Your task to perform on an android device: create a new album in the google photos Image 0: 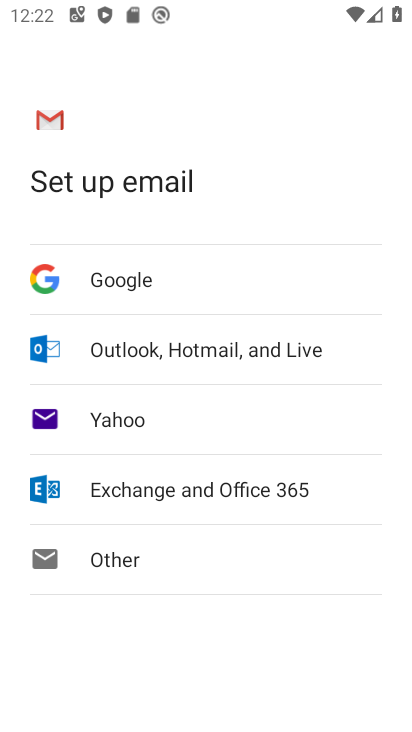
Step 0: press home button
Your task to perform on an android device: create a new album in the google photos Image 1: 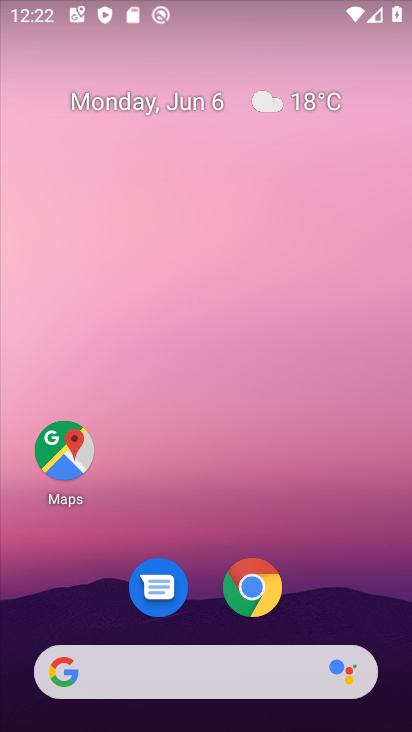
Step 1: drag from (346, 612) to (352, 207)
Your task to perform on an android device: create a new album in the google photos Image 2: 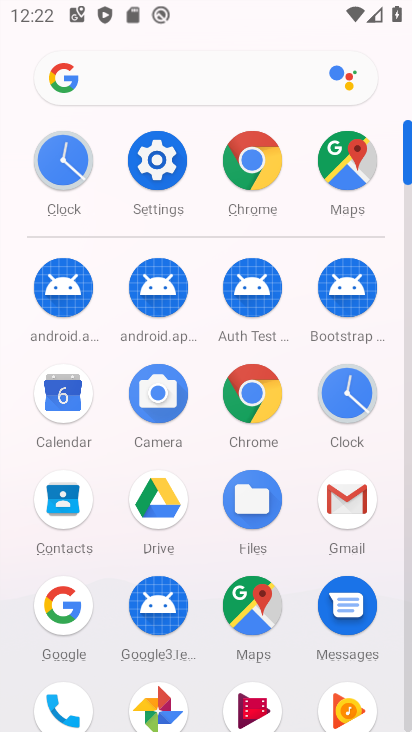
Step 2: drag from (299, 543) to (304, 169)
Your task to perform on an android device: create a new album in the google photos Image 3: 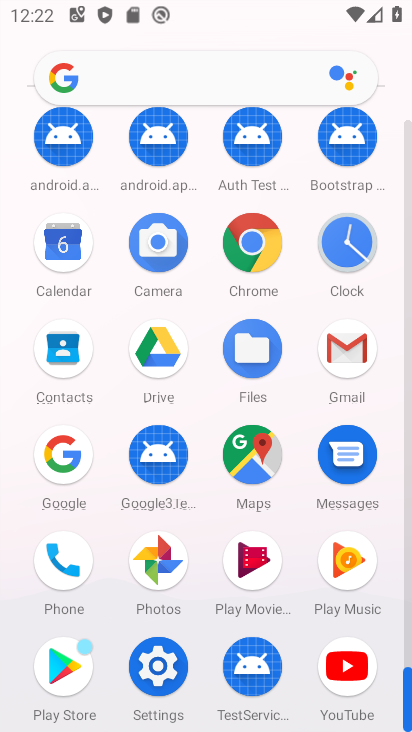
Step 3: click (155, 565)
Your task to perform on an android device: create a new album in the google photos Image 4: 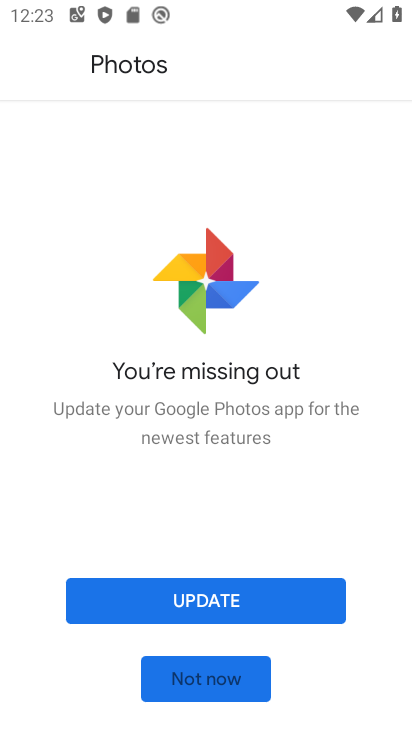
Step 4: click (272, 608)
Your task to perform on an android device: create a new album in the google photos Image 5: 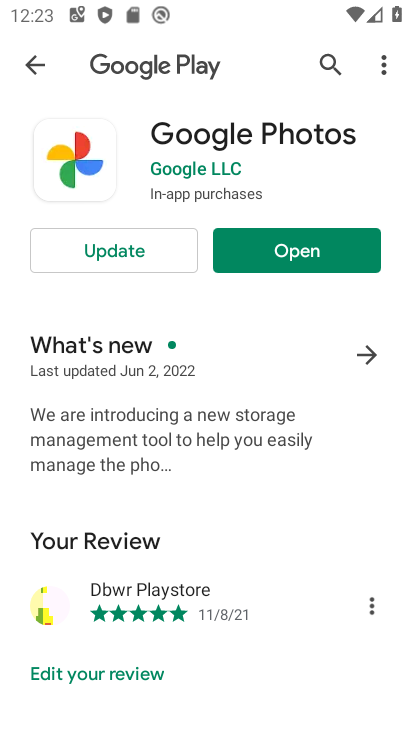
Step 5: click (119, 246)
Your task to perform on an android device: create a new album in the google photos Image 6: 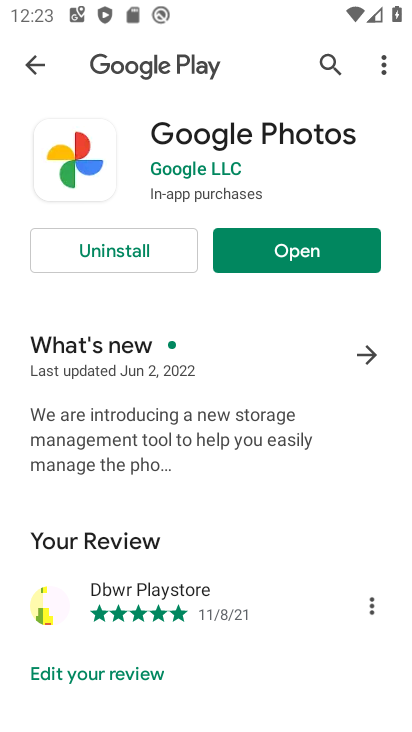
Step 6: click (279, 258)
Your task to perform on an android device: create a new album in the google photos Image 7: 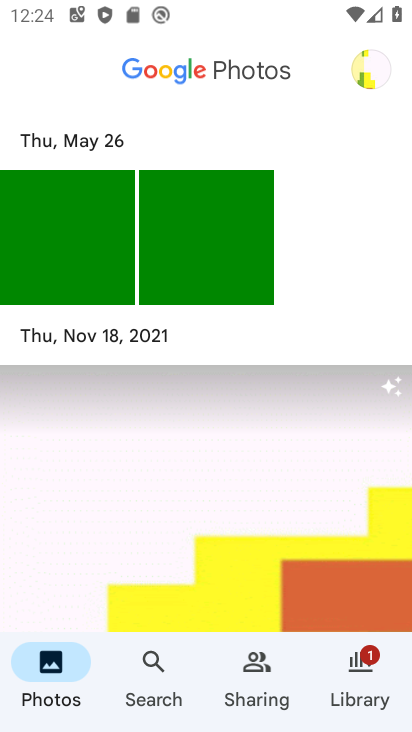
Step 7: click (146, 674)
Your task to perform on an android device: create a new album in the google photos Image 8: 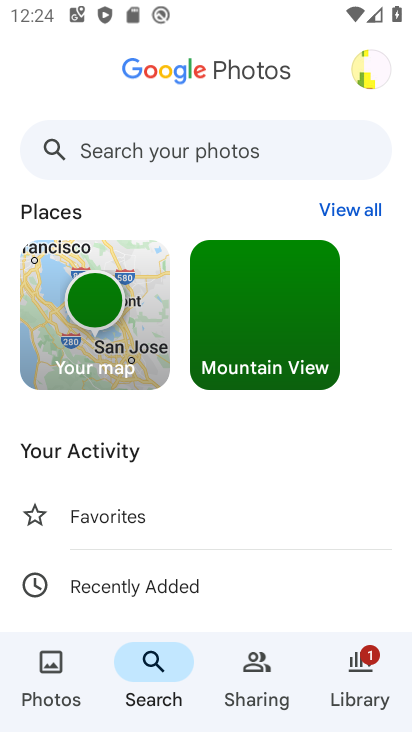
Step 8: drag from (218, 545) to (280, 206)
Your task to perform on an android device: create a new album in the google photos Image 9: 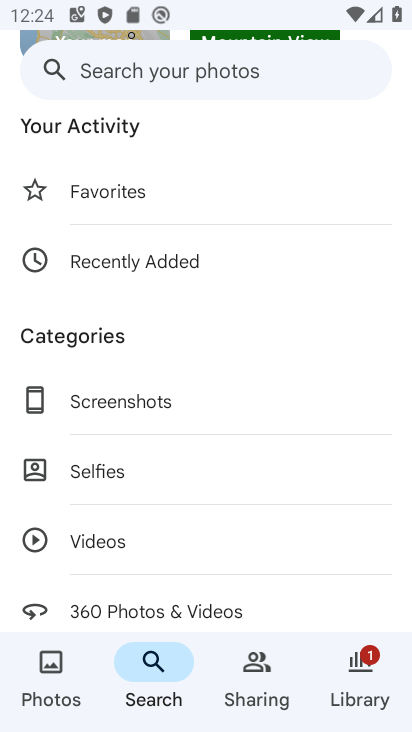
Step 9: drag from (217, 545) to (217, 238)
Your task to perform on an android device: create a new album in the google photos Image 10: 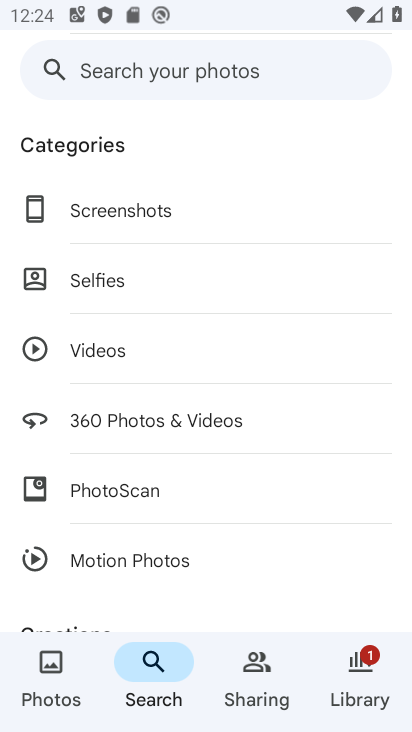
Step 10: drag from (267, 344) to (283, 644)
Your task to perform on an android device: create a new album in the google photos Image 11: 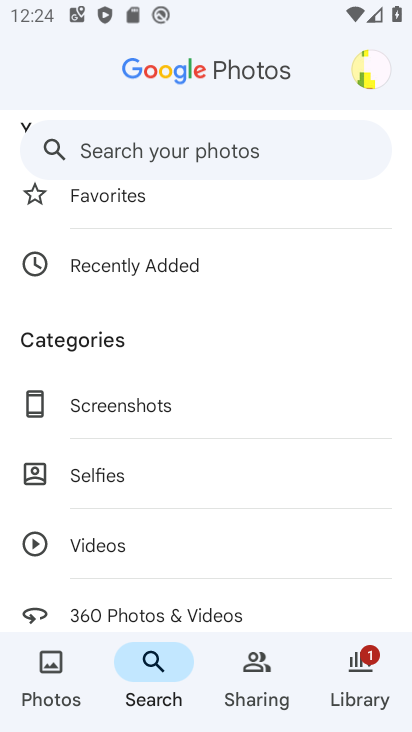
Step 11: drag from (262, 283) to (246, 609)
Your task to perform on an android device: create a new album in the google photos Image 12: 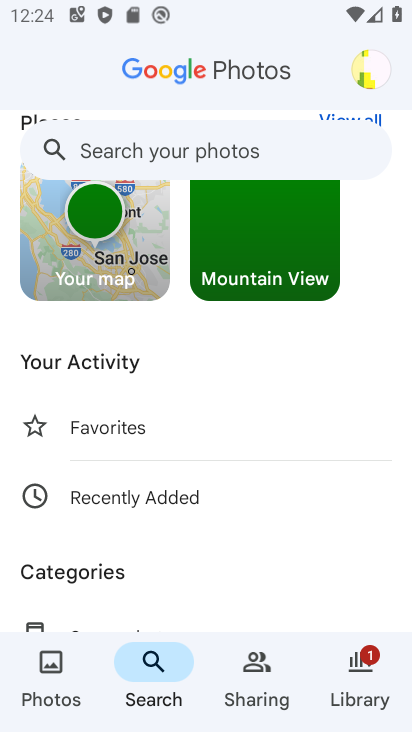
Step 12: drag from (158, 314) to (203, 562)
Your task to perform on an android device: create a new album in the google photos Image 13: 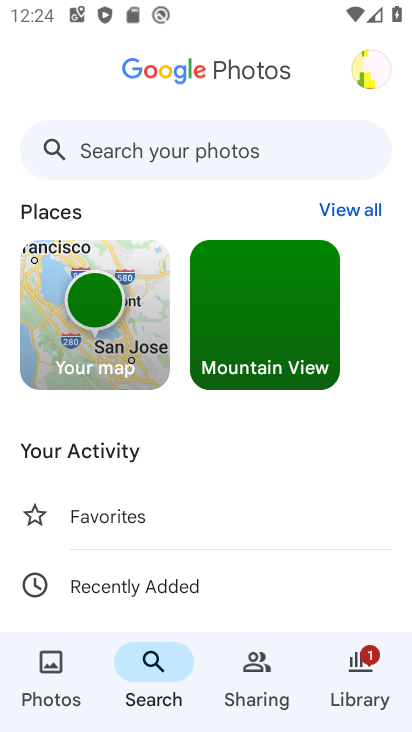
Step 13: drag from (197, 585) to (228, 452)
Your task to perform on an android device: create a new album in the google photos Image 14: 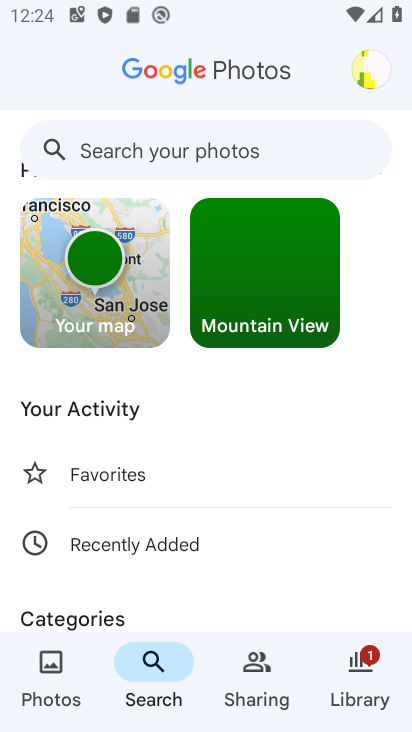
Step 14: click (353, 165)
Your task to perform on an android device: create a new album in the google photos Image 15: 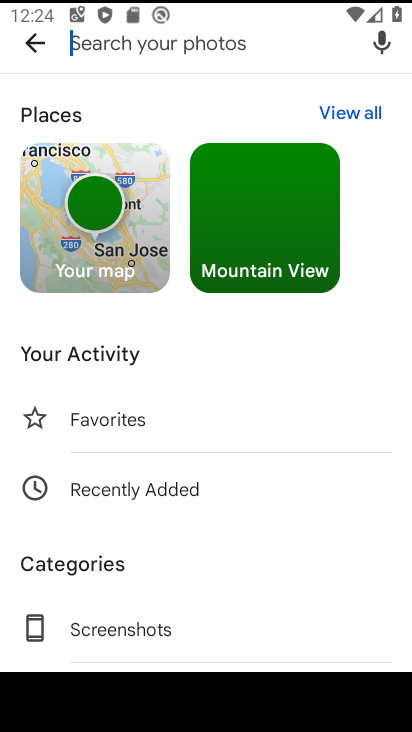
Step 15: drag from (224, 580) to (294, 210)
Your task to perform on an android device: create a new album in the google photos Image 16: 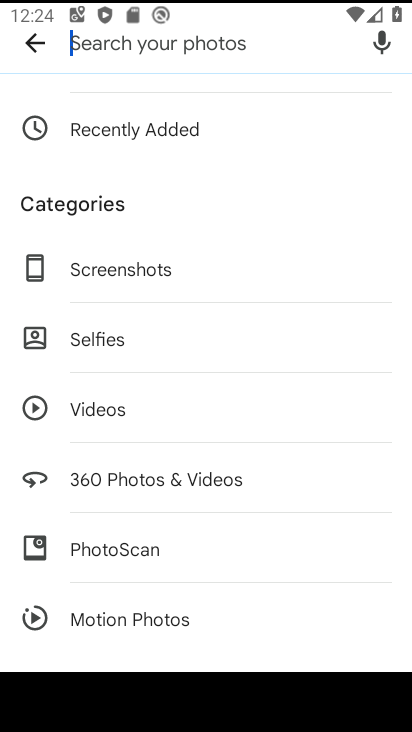
Step 16: drag from (244, 555) to (277, 183)
Your task to perform on an android device: create a new album in the google photos Image 17: 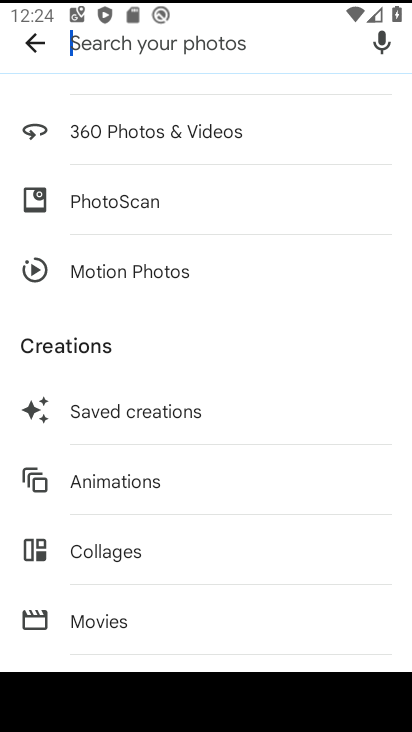
Step 17: click (282, 202)
Your task to perform on an android device: create a new album in the google photos Image 18: 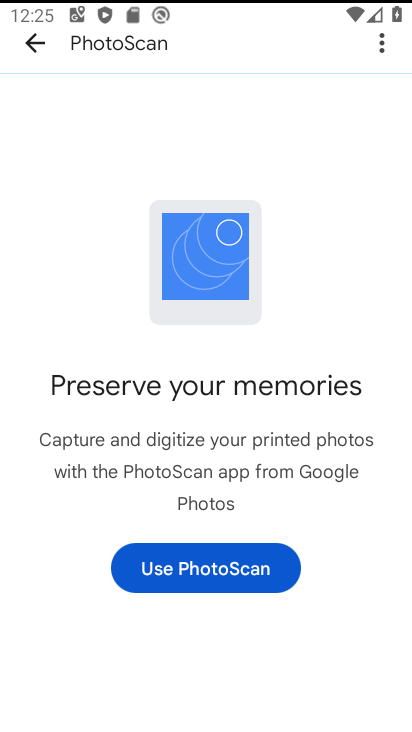
Step 18: task complete